Your task to perform on an android device: toggle data saver in the chrome app Image 0: 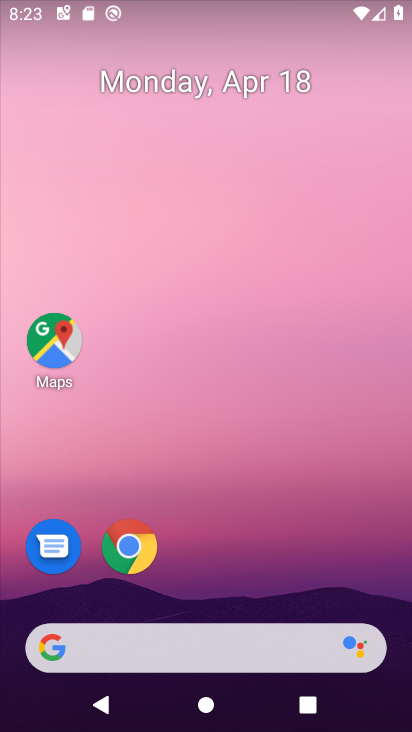
Step 0: click (284, 294)
Your task to perform on an android device: toggle data saver in the chrome app Image 1: 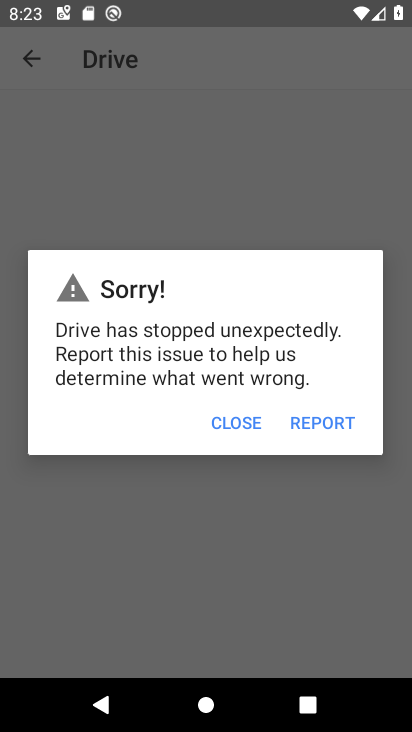
Step 1: press home button
Your task to perform on an android device: toggle data saver in the chrome app Image 2: 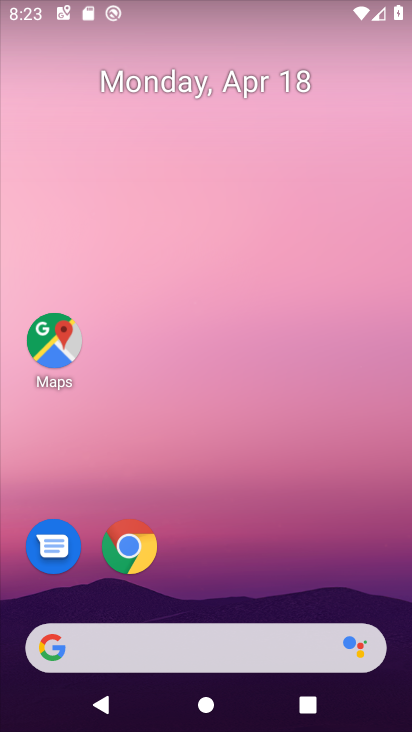
Step 2: drag from (345, 603) to (271, 258)
Your task to perform on an android device: toggle data saver in the chrome app Image 3: 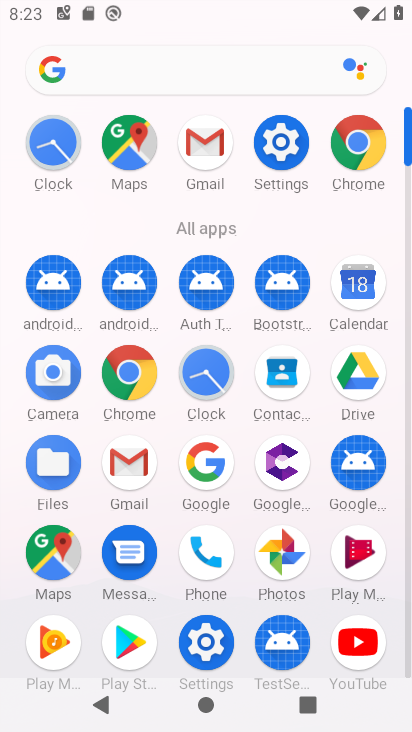
Step 3: click (366, 182)
Your task to perform on an android device: toggle data saver in the chrome app Image 4: 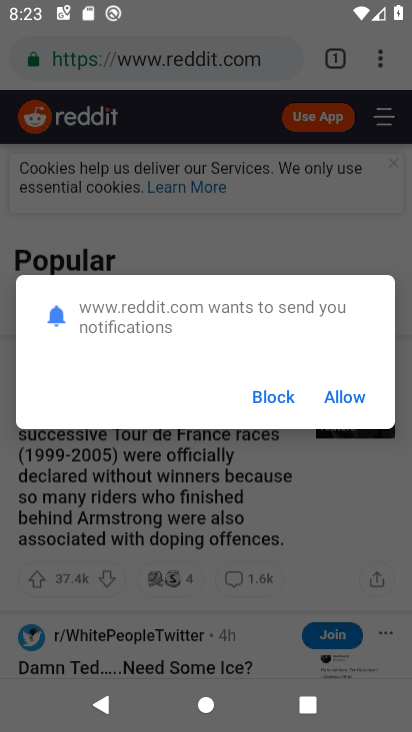
Step 4: press home button
Your task to perform on an android device: toggle data saver in the chrome app Image 5: 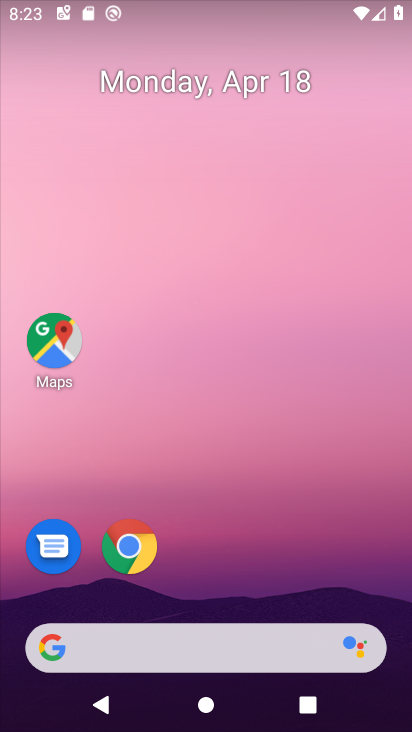
Step 5: click (114, 551)
Your task to perform on an android device: toggle data saver in the chrome app Image 6: 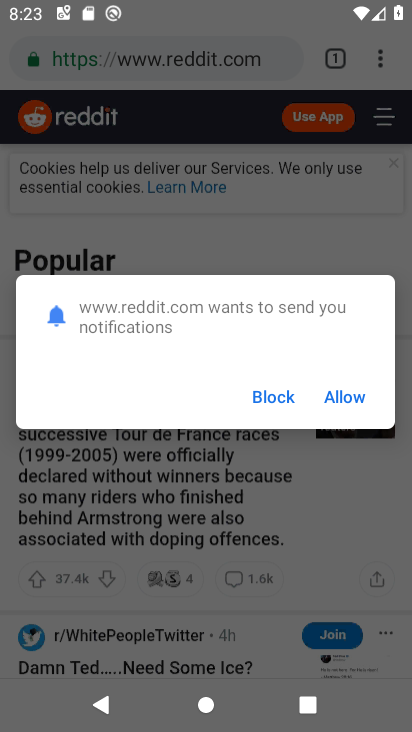
Step 6: click (253, 405)
Your task to perform on an android device: toggle data saver in the chrome app Image 7: 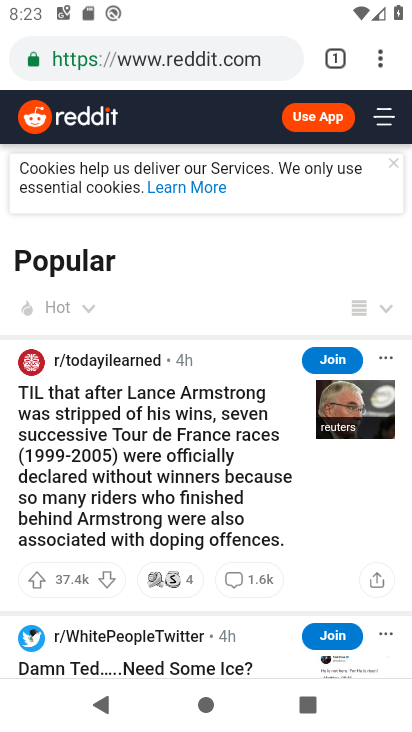
Step 7: drag from (376, 71) to (299, 577)
Your task to perform on an android device: toggle data saver in the chrome app Image 8: 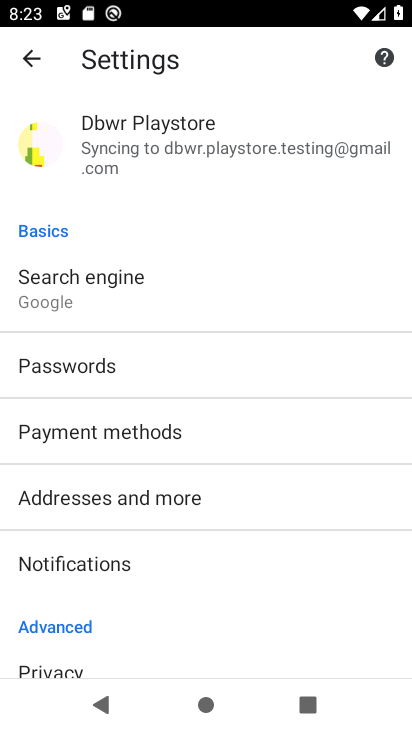
Step 8: drag from (277, 638) to (182, 111)
Your task to perform on an android device: toggle data saver in the chrome app Image 9: 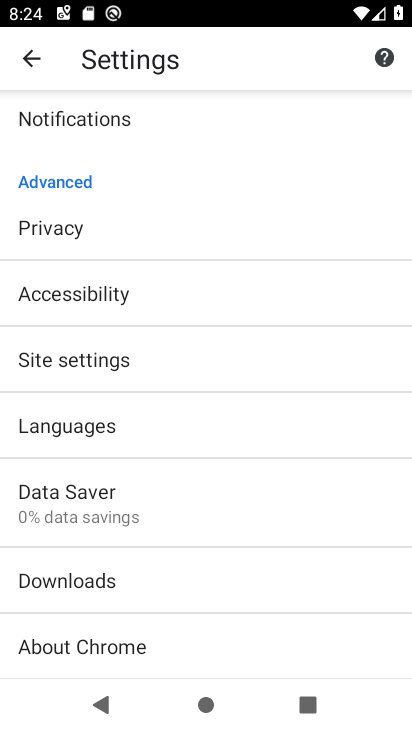
Step 9: click (186, 513)
Your task to perform on an android device: toggle data saver in the chrome app Image 10: 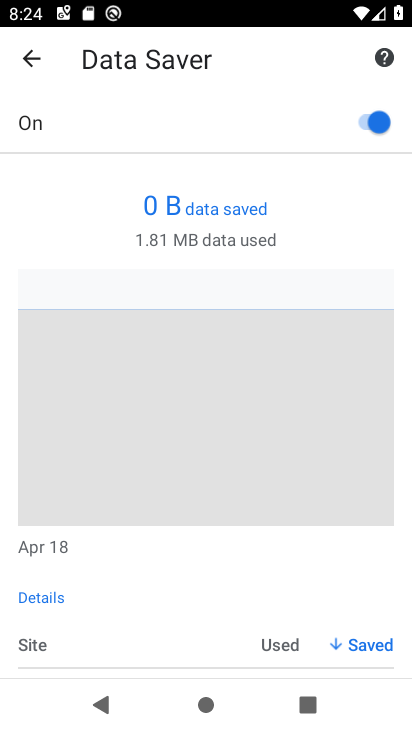
Step 10: click (363, 122)
Your task to perform on an android device: toggle data saver in the chrome app Image 11: 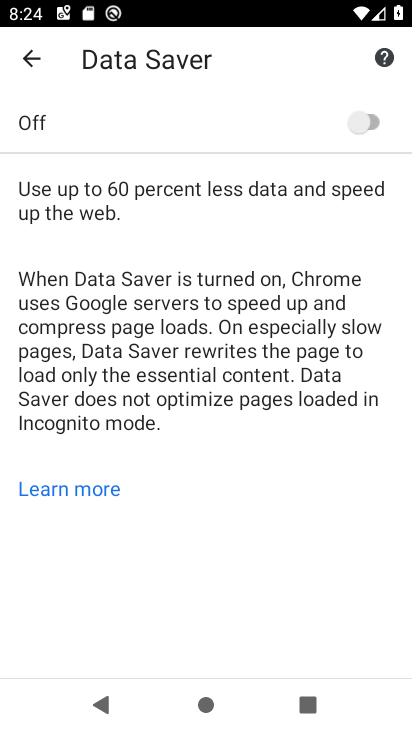
Step 11: task complete